Your task to perform on an android device: Open Google Chrome Image 0: 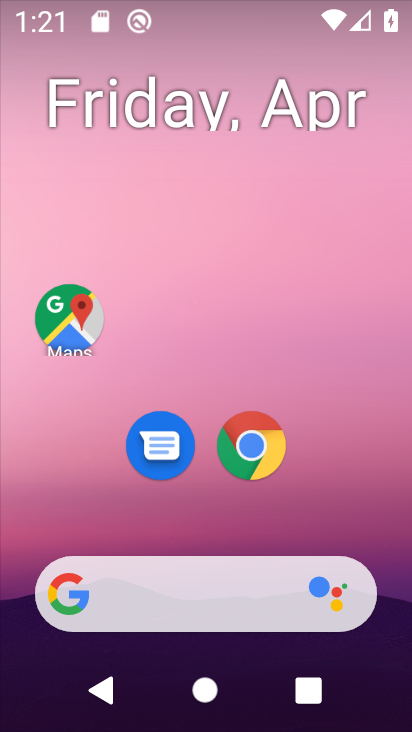
Step 0: drag from (345, 522) to (356, 304)
Your task to perform on an android device: Open Google Chrome Image 1: 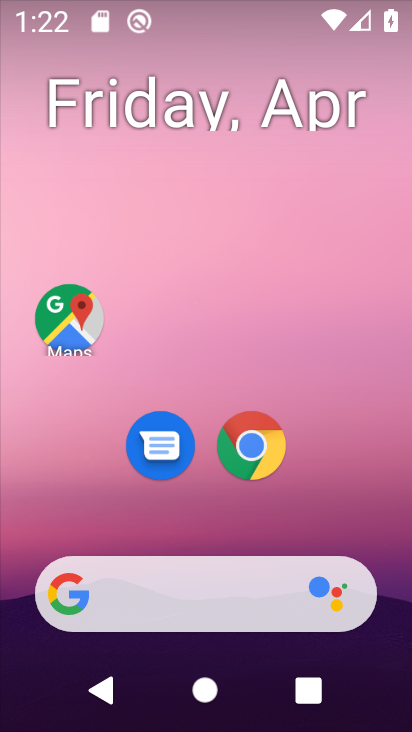
Step 1: drag from (345, 496) to (365, 61)
Your task to perform on an android device: Open Google Chrome Image 2: 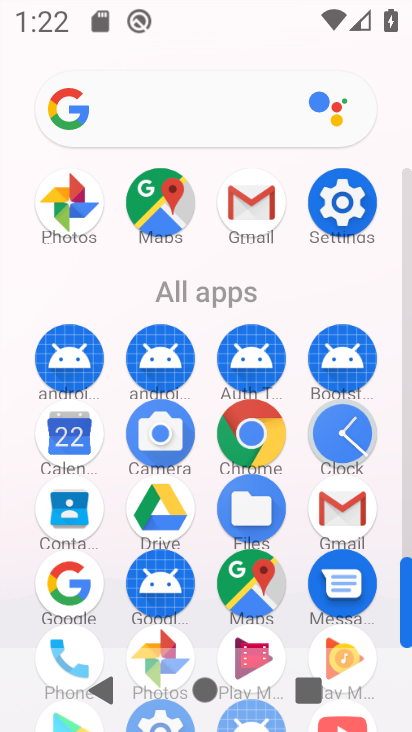
Step 2: click (254, 443)
Your task to perform on an android device: Open Google Chrome Image 3: 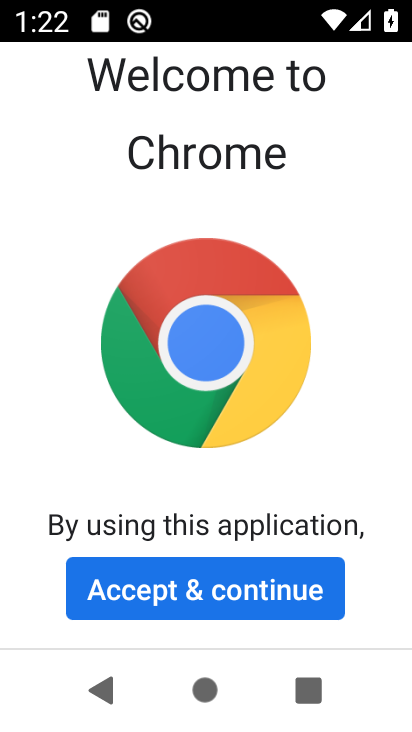
Step 3: click (196, 590)
Your task to perform on an android device: Open Google Chrome Image 4: 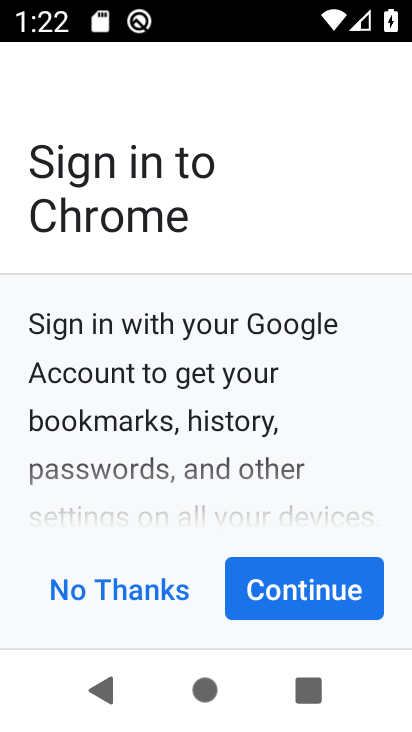
Step 4: click (255, 594)
Your task to perform on an android device: Open Google Chrome Image 5: 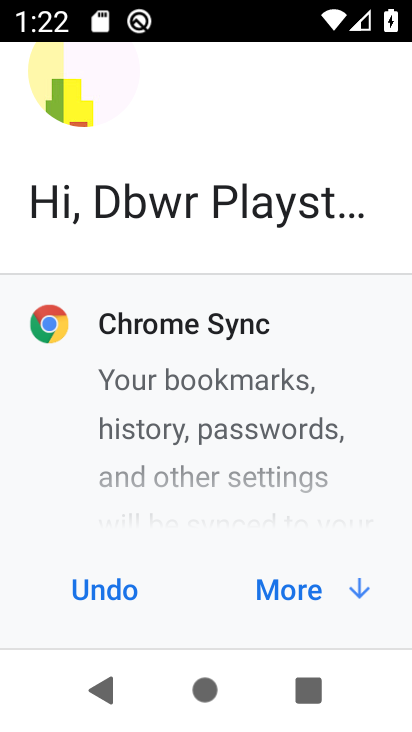
Step 5: click (255, 594)
Your task to perform on an android device: Open Google Chrome Image 6: 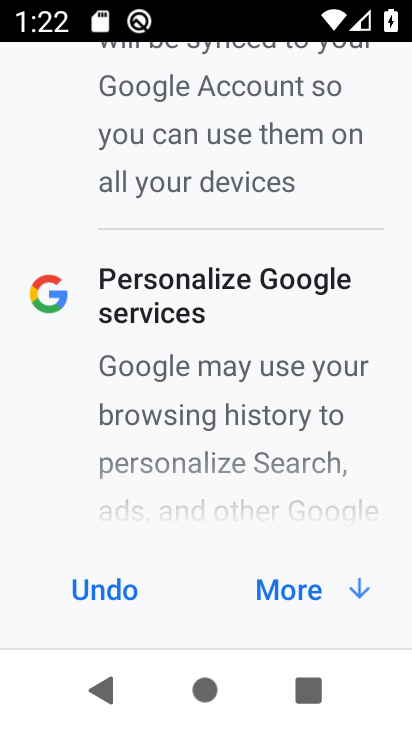
Step 6: click (255, 594)
Your task to perform on an android device: Open Google Chrome Image 7: 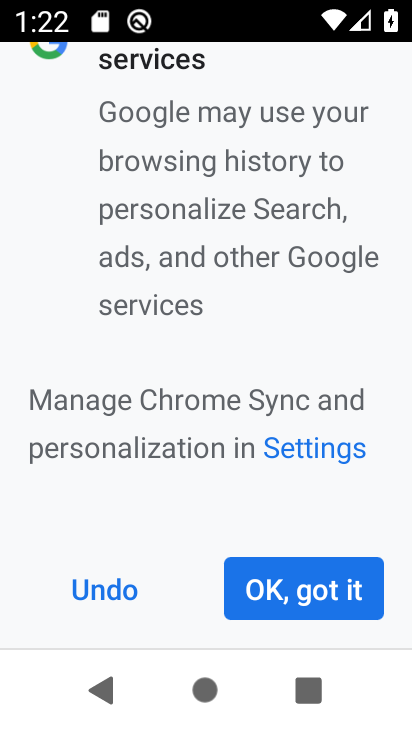
Step 7: click (255, 594)
Your task to perform on an android device: Open Google Chrome Image 8: 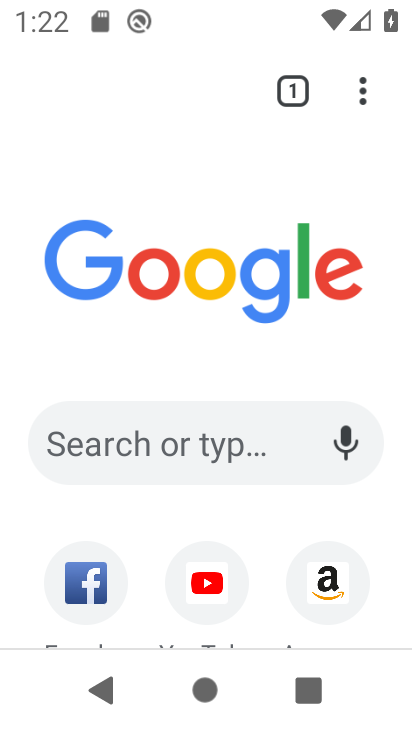
Step 8: task complete